Your task to perform on an android device: Open location settings Image 0: 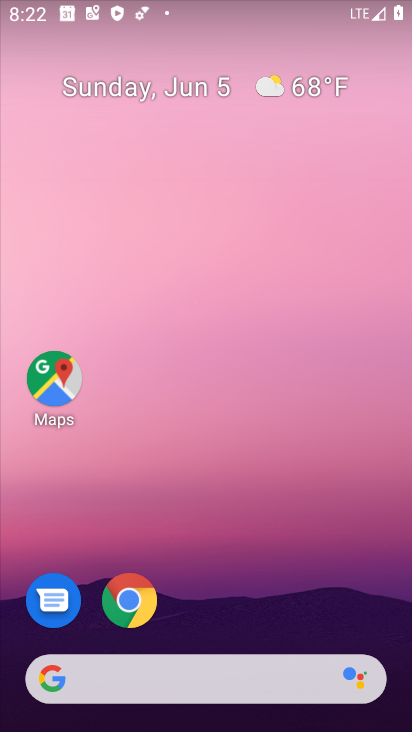
Step 0: drag from (235, 555) to (255, 40)
Your task to perform on an android device: Open location settings Image 1: 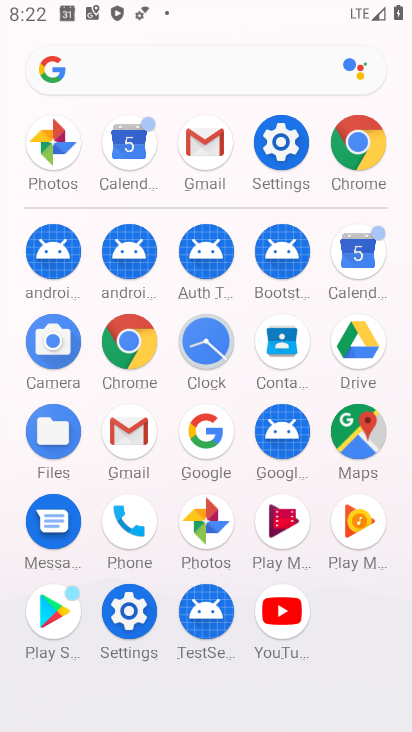
Step 1: click (291, 142)
Your task to perform on an android device: Open location settings Image 2: 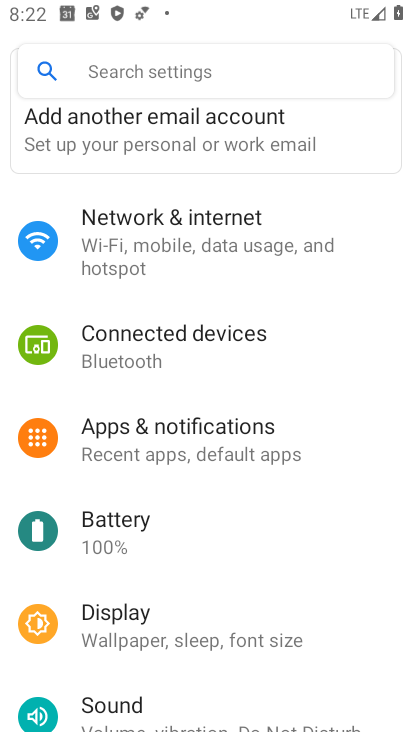
Step 2: drag from (195, 539) to (215, 135)
Your task to perform on an android device: Open location settings Image 3: 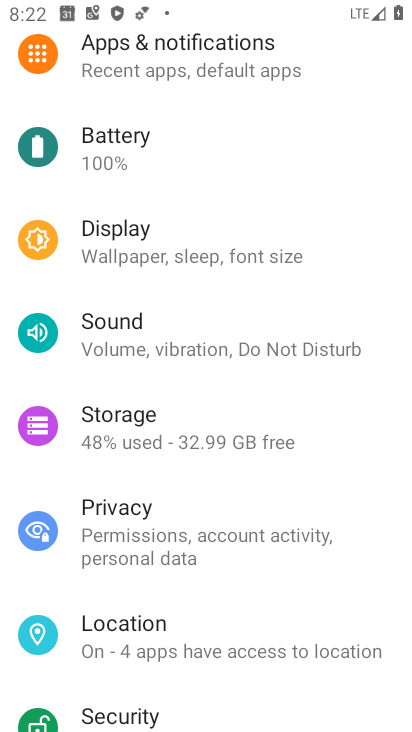
Step 3: click (225, 633)
Your task to perform on an android device: Open location settings Image 4: 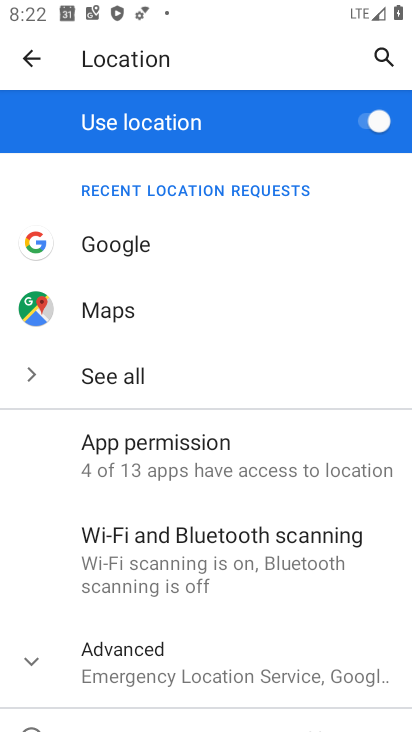
Step 4: task complete